Your task to perform on an android device: toggle airplane mode Image 0: 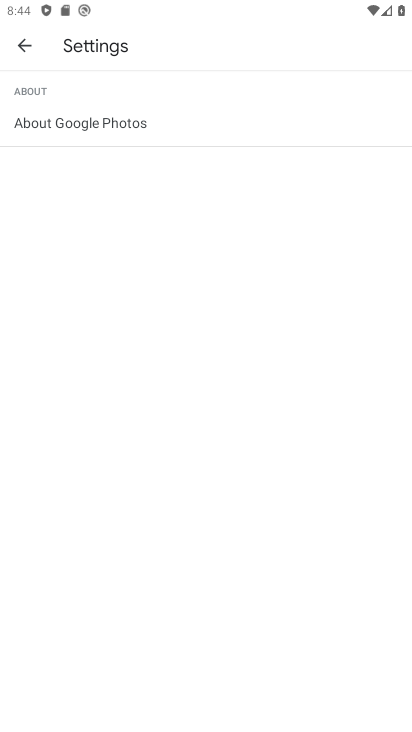
Step 0: press home button
Your task to perform on an android device: toggle airplane mode Image 1: 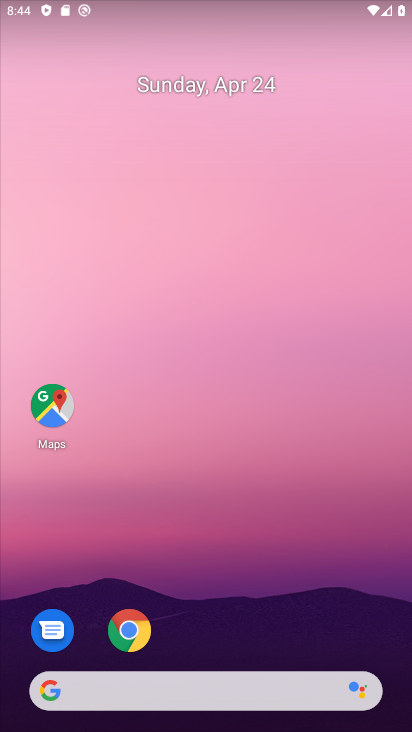
Step 1: drag from (183, 603) to (255, 175)
Your task to perform on an android device: toggle airplane mode Image 2: 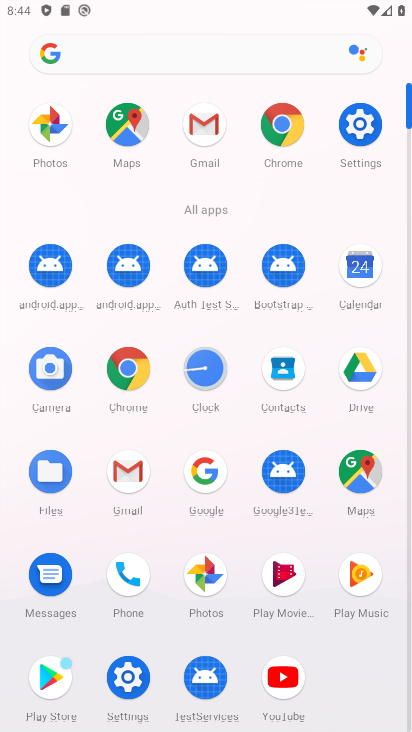
Step 2: click (357, 123)
Your task to perform on an android device: toggle airplane mode Image 3: 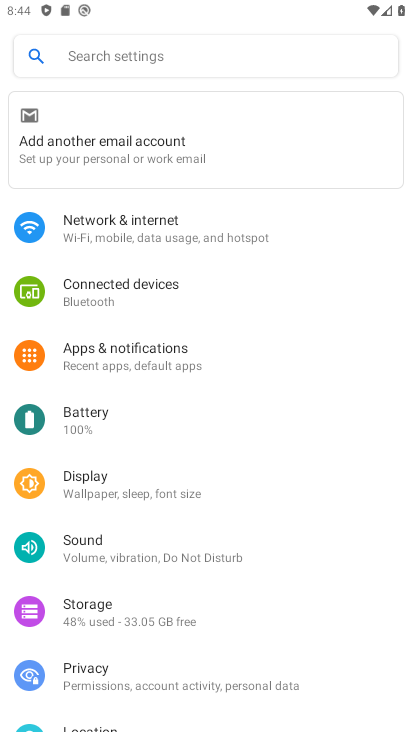
Step 3: click (118, 223)
Your task to perform on an android device: toggle airplane mode Image 4: 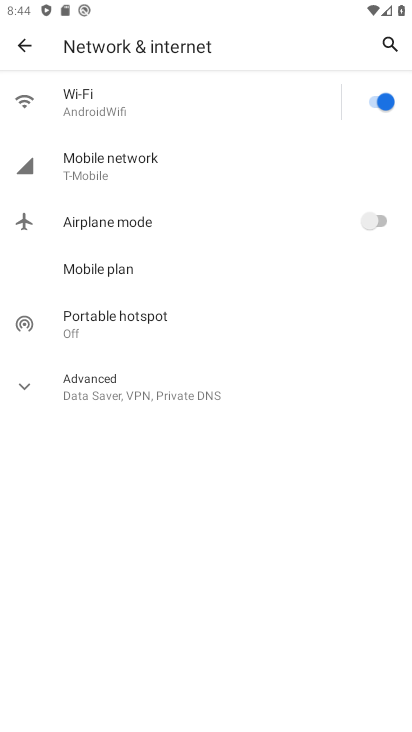
Step 4: click (363, 225)
Your task to perform on an android device: toggle airplane mode Image 5: 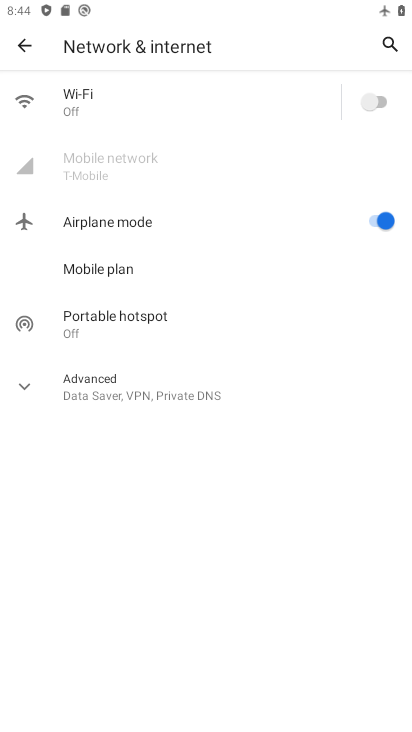
Step 5: task complete